Your task to perform on an android device: open chrome privacy settings Image 0: 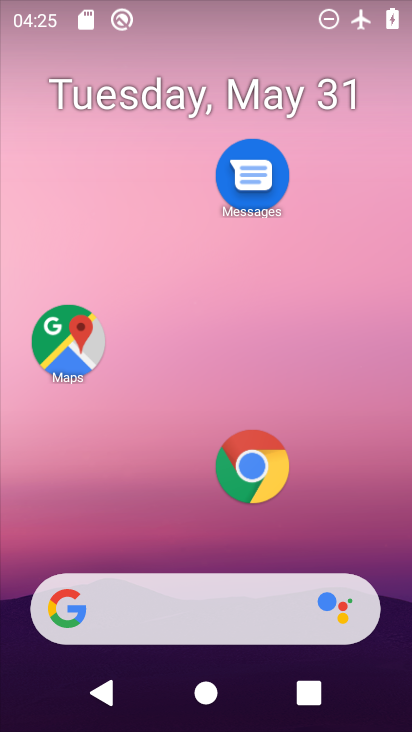
Step 0: drag from (151, 536) to (192, 144)
Your task to perform on an android device: open chrome privacy settings Image 1: 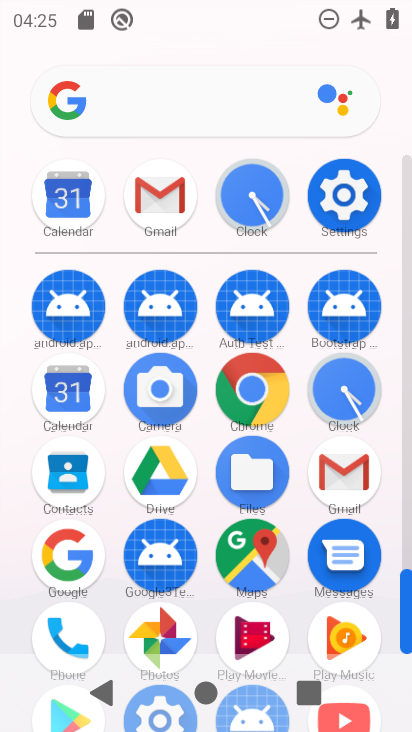
Step 1: click (258, 398)
Your task to perform on an android device: open chrome privacy settings Image 2: 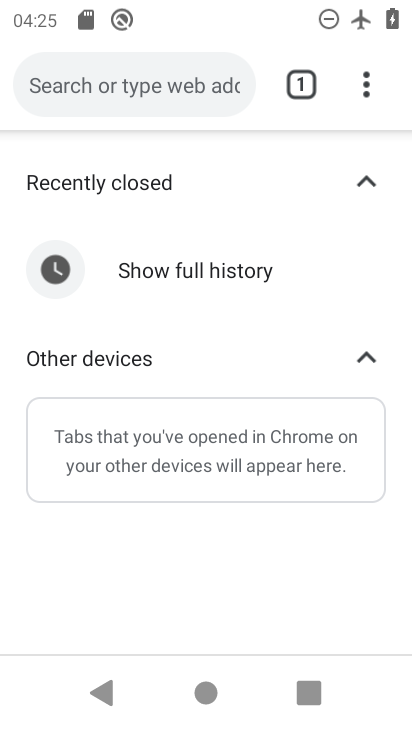
Step 2: drag from (366, 81) to (116, 505)
Your task to perform on an android device: open chrome privacy settings Image 3: 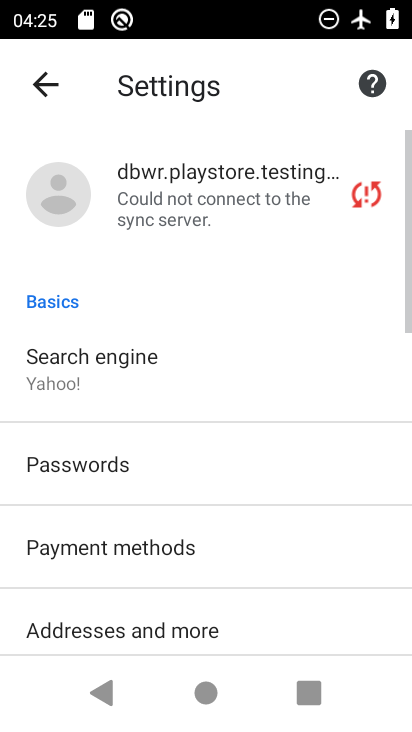
Step 3: drag from (152, 631) to (231, 204)
Your task to perform on an android device: open chrome privacy settings Image 4: 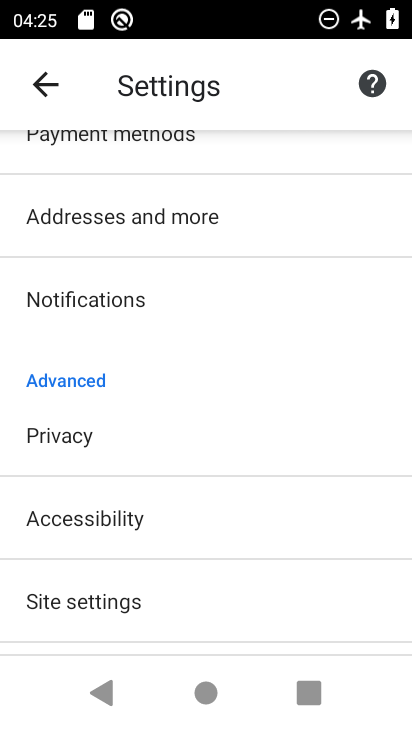
Step 4: click (52, 435)
Your task to perform on an android device: open chrome privacy settings Image 5: 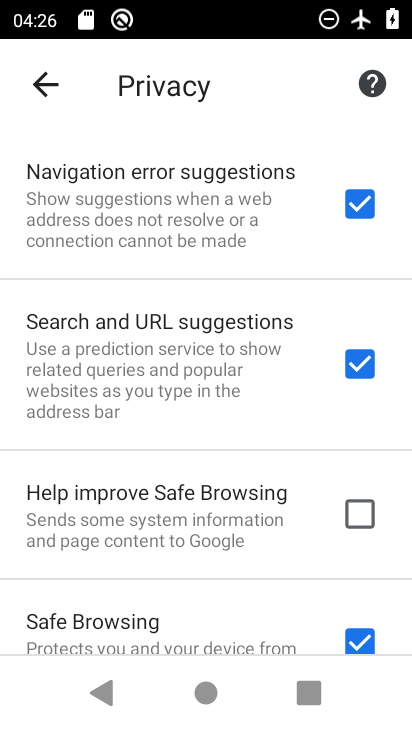
Step 5: task complete